Your task to perform on an android device: Open a new Chrome incognito window Image 0: 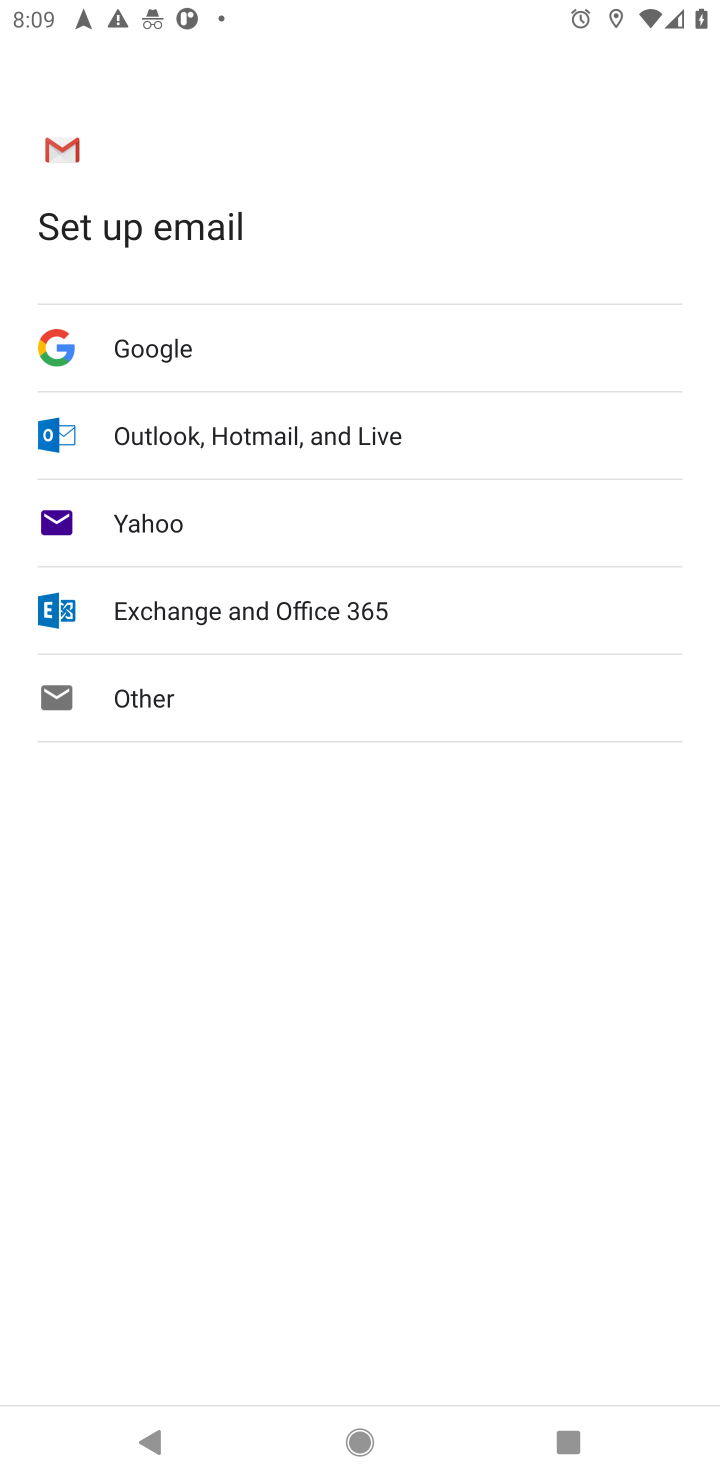
Step 0: press home button
Your task to perform on an android device: Open a new Chrome incognito window Image 1: 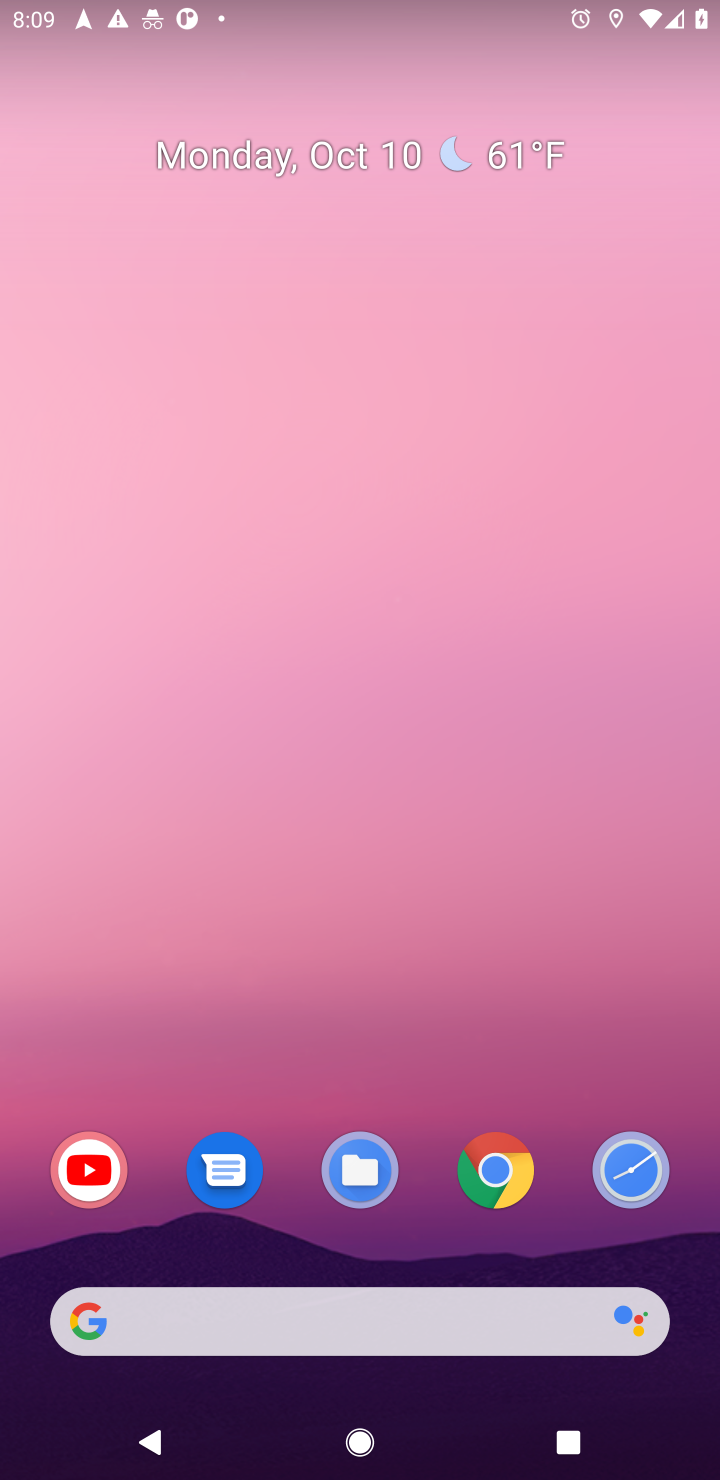
Step 1: click (520, 1158)
Your task to perform on an android device: Open a new Chrome incognito window Image 2: 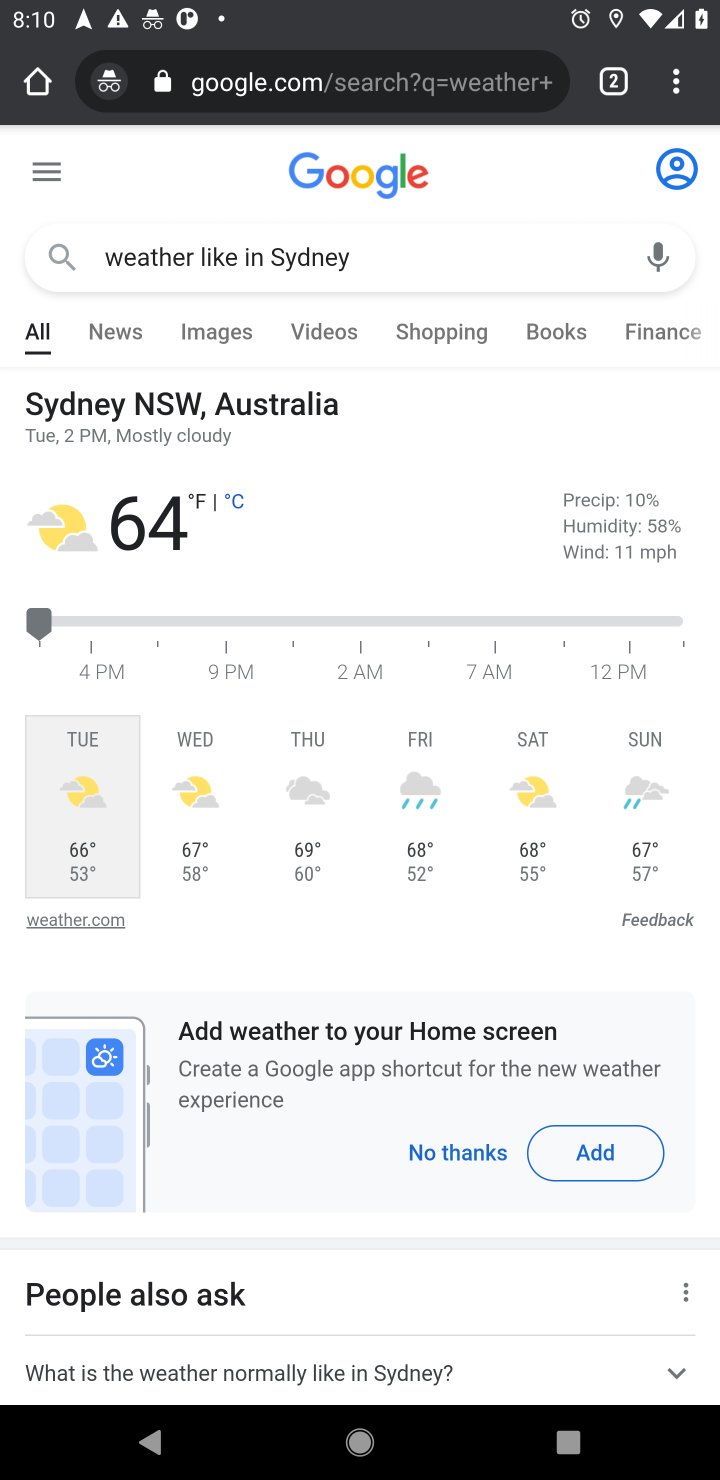
Step 2: click (686, 70)
Your task to perform on an android device: Open a new Chrome incognito window Image 3: 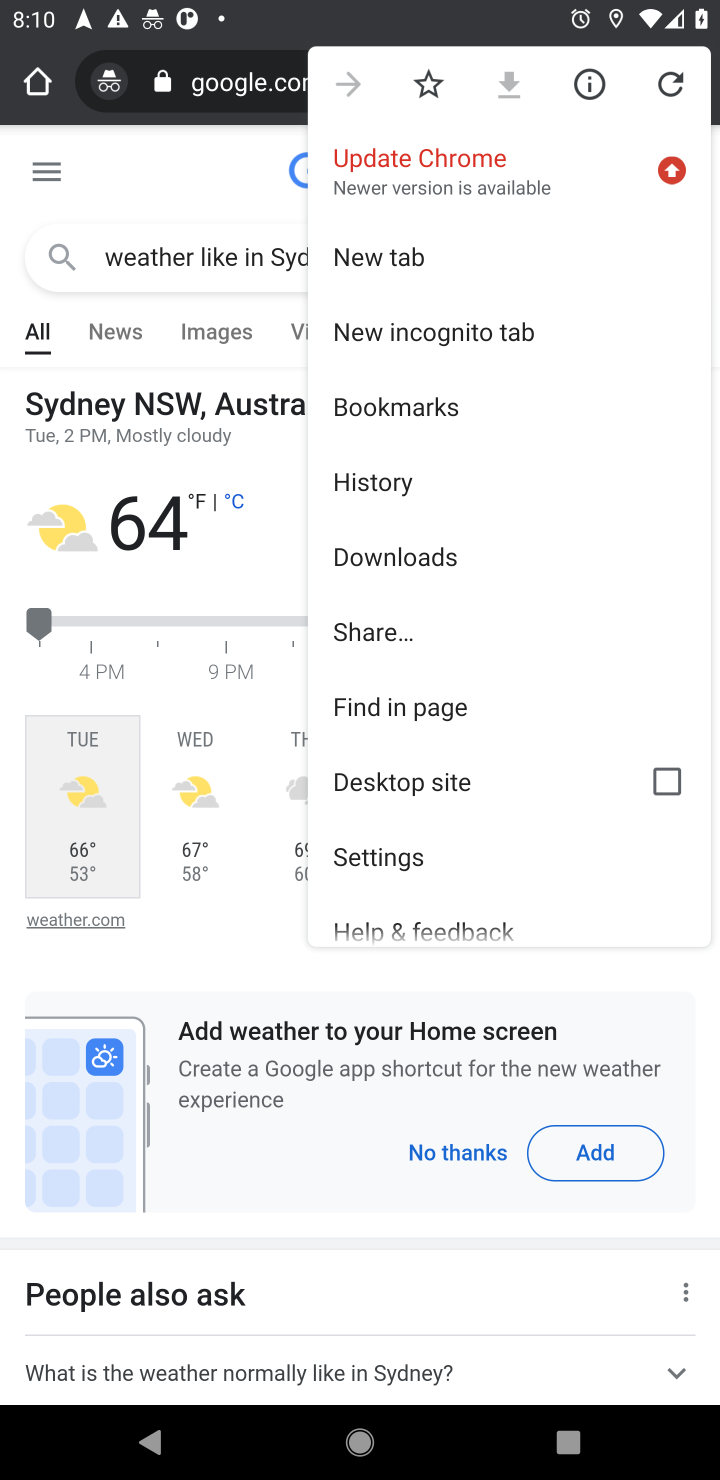
Step 3: click (555, 342)
Your task to perform on an android device: Open a new Chrome incognito window Image 4: 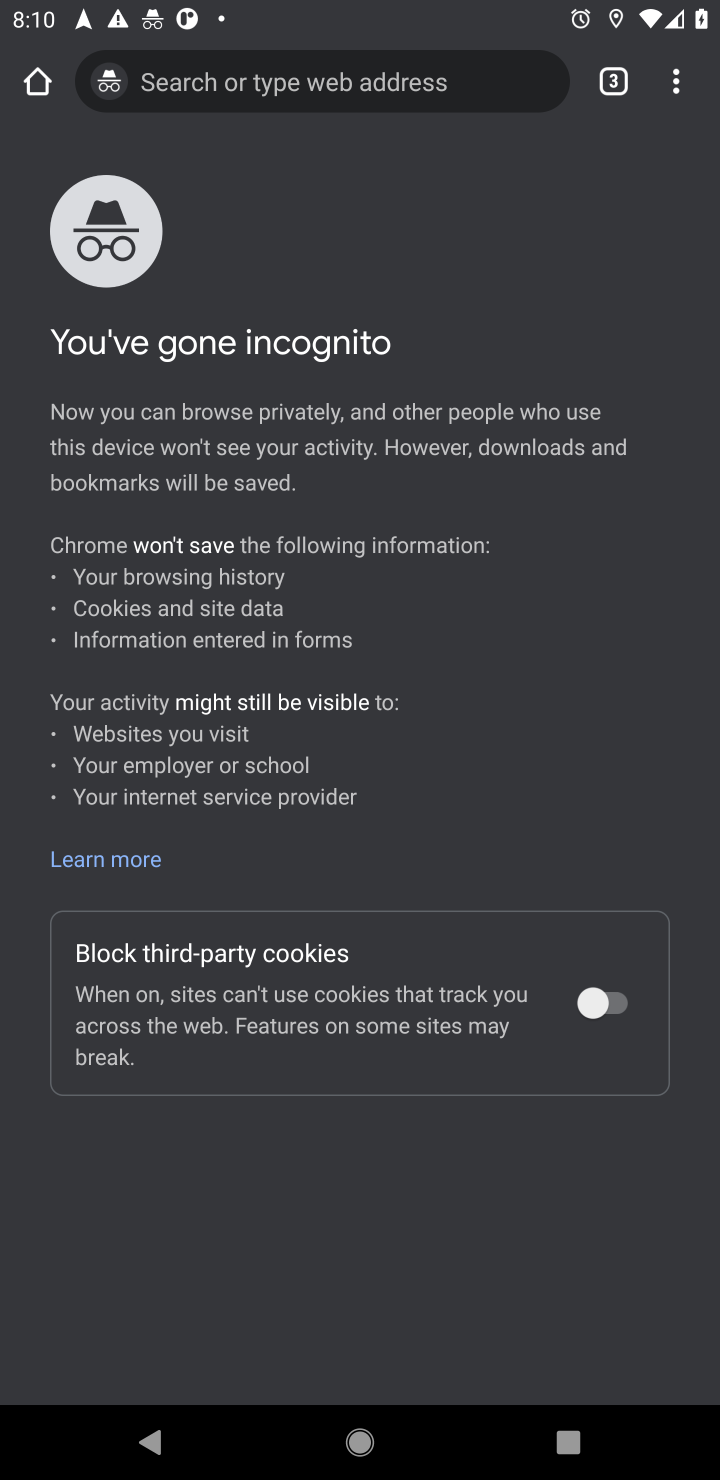
Step 4: task complete